Your task to perform on an android device: Find coffee shops on Maps Image 0: 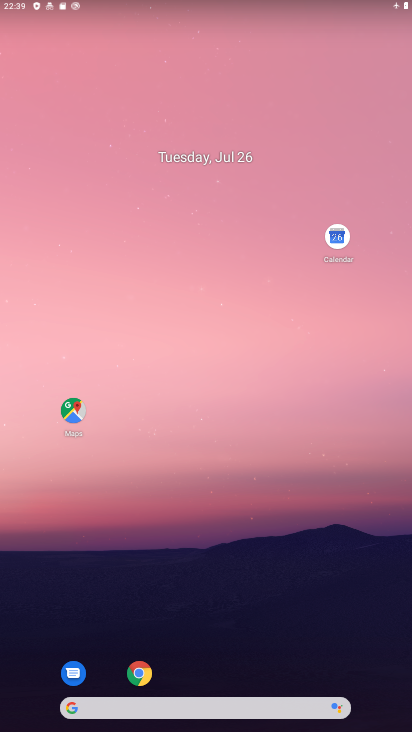
Step 0: drag from (330, 596) to (217, 0)
Your task to perform on an android device: Find coffee shops on Maps Image 1: 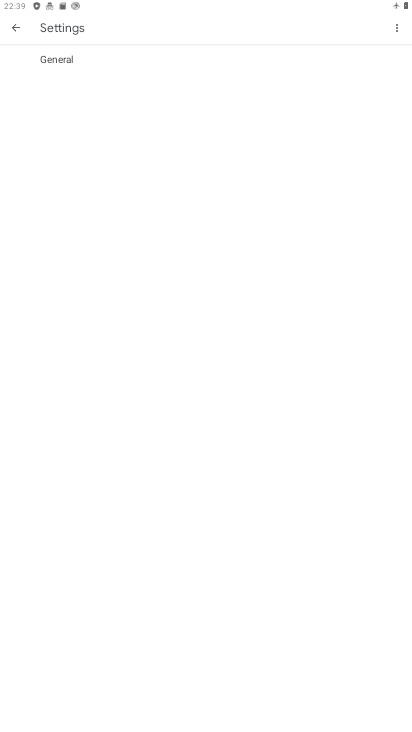
Step 1: click (15, 32)
Your task to perform on an android device: Find coffee shops on Maps Image 2: 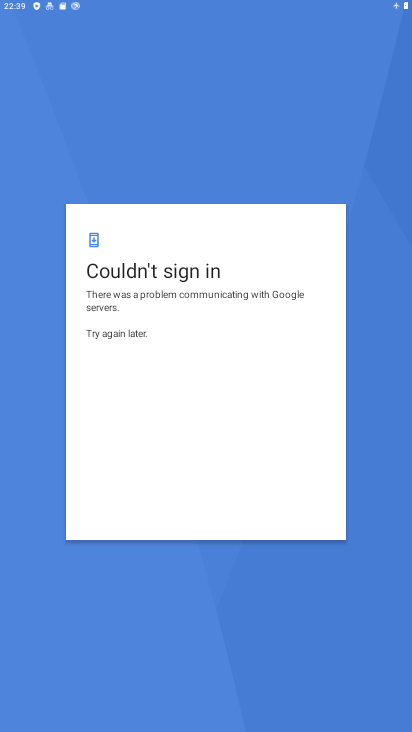
Step 2: press back button
Your task to perform on an android device: Find coffee shops on Maps Image 3: 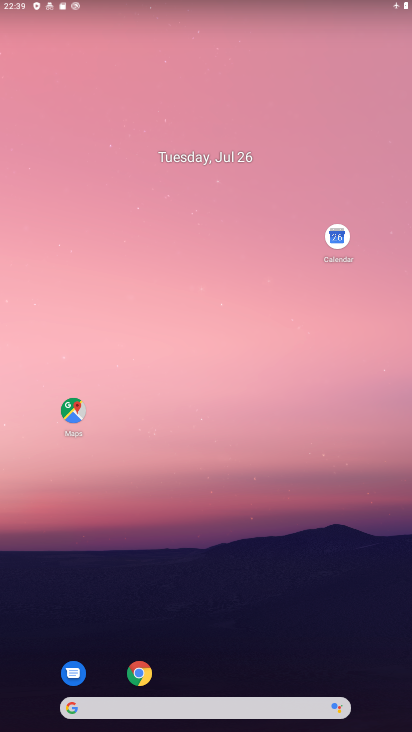
Step 3: click (75, 418)
Your task to perform on an android device: Find coffee shops on Maps Image 4: 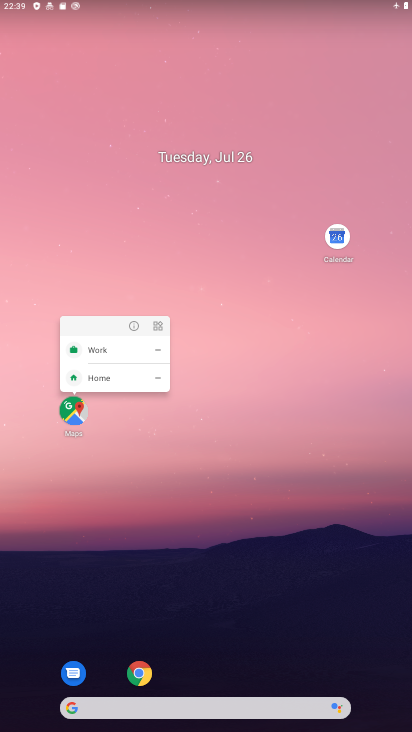
Step 4: click (74, 418)
Your task to perform on an android device: Find coffee shops on Maps Image 5: 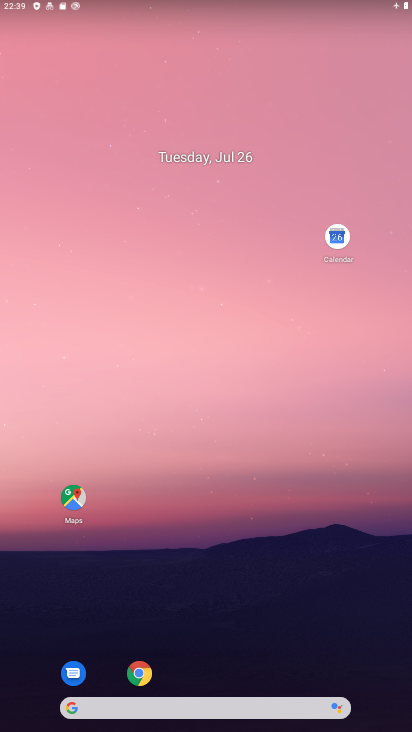
Step 5: click (76, 426)
Your task to perform on an android device: Find coffee shops on Maps Image 6: 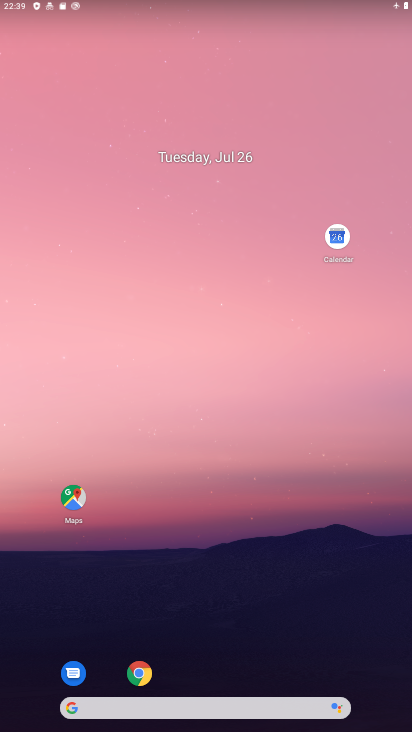
Step 6: click (66, 500)
Your task to perform on an android device: Find coffee shops on Maps Image 7: 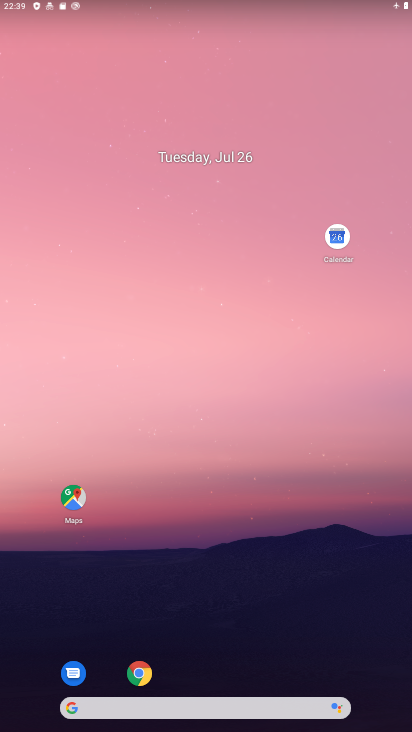
Step 7: click (69, 505)
Your task to perform on an android device: Find coffee shops on Maps Image 8: 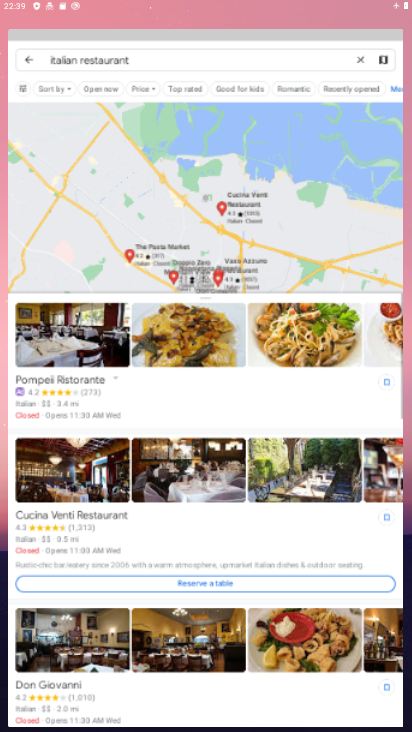
Step 8: click (75, 509)
Your task to perform on an android device: Find coffee shops on Maps Image 9: 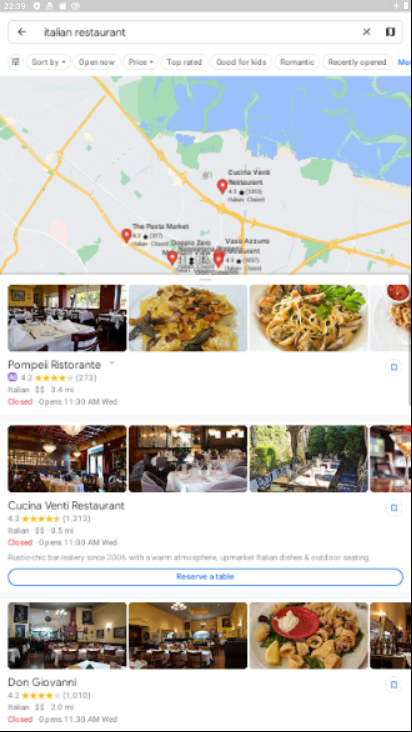
Step 9: click (90, 499)
Your task to perform on an android device: Find coffee shops on Maps Image 10: 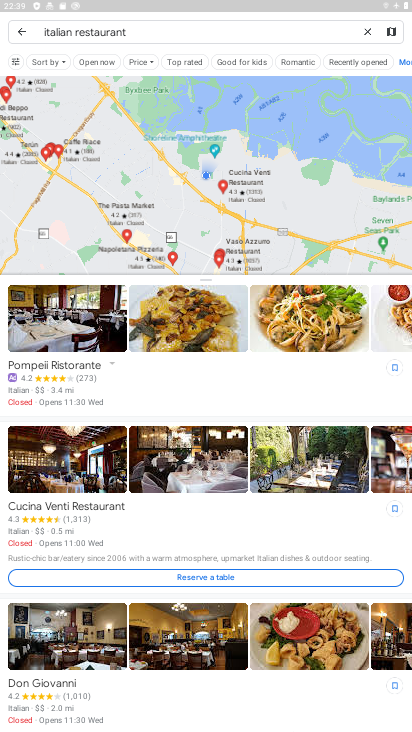
Step 10: click (135, 32)
Your task to perform on an android device: Find coffee shops on Maps Image 11: 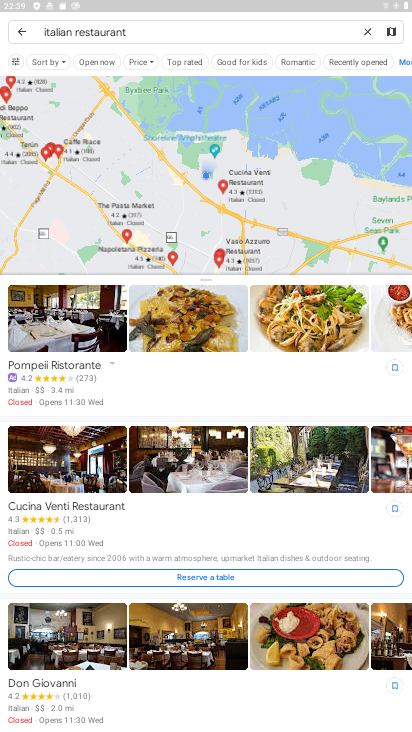
Step 11: click (142, 29)
Your task to perform on an android device: Find coffee shops on Maps Image 12: 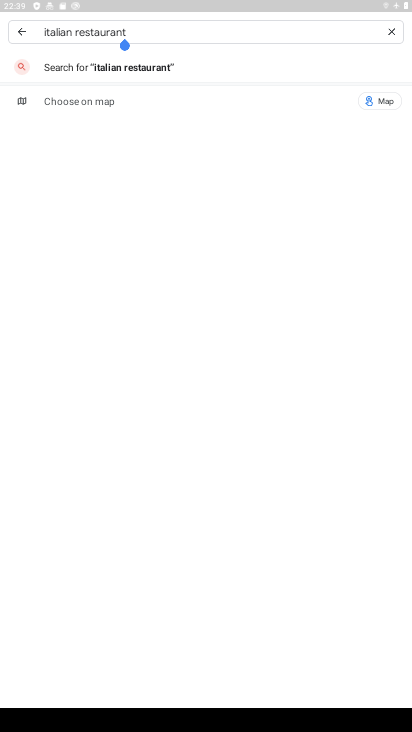
Step 12: click (134, 40)
Your task to perform on an android device: Find coffee shops on Maps Image 13: 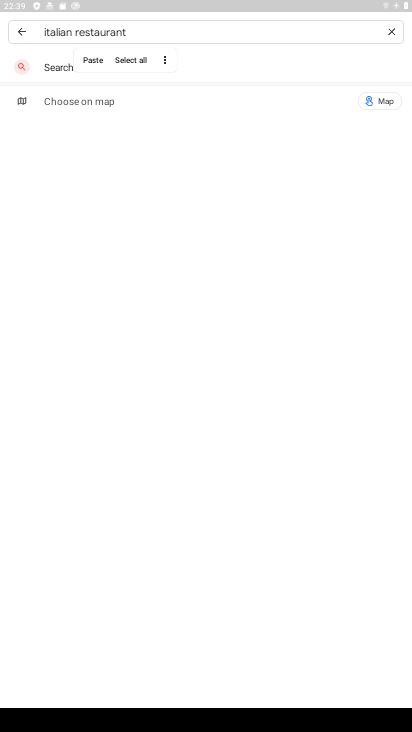
Step 13: click (394, 29)
Your task to perform on an android device: Find coffee shops on Maps Image 14: 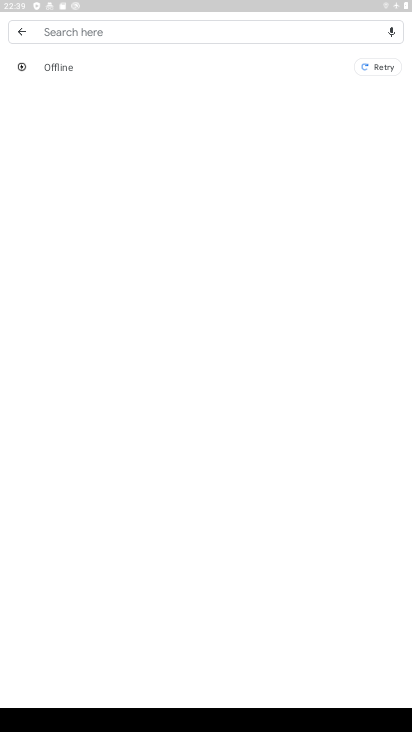
Step 14: type "coffee"
Your task to perform on an android device: Find coffee shops on Maps Image 15: 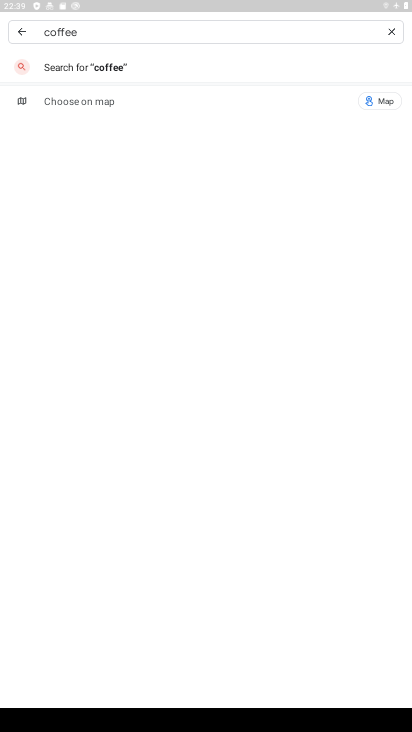
Step 15: click (113, 63)
Your task to perform on an android device: Find coffee shops on Maps Image 16: 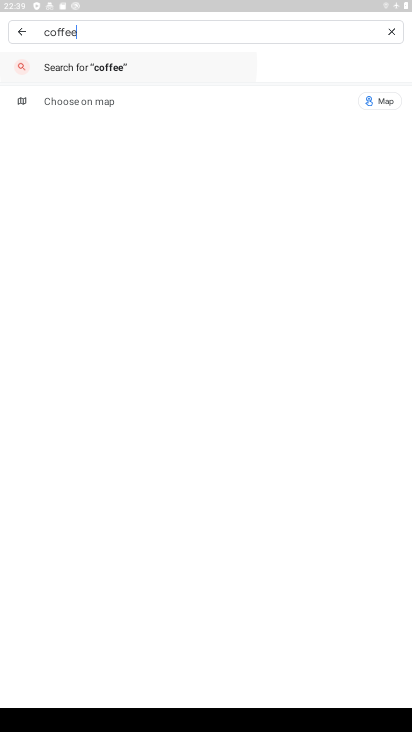
Step 16: click (112, 64)
Your task to perform on an android device: Find coffee shops on Maps Image 17: 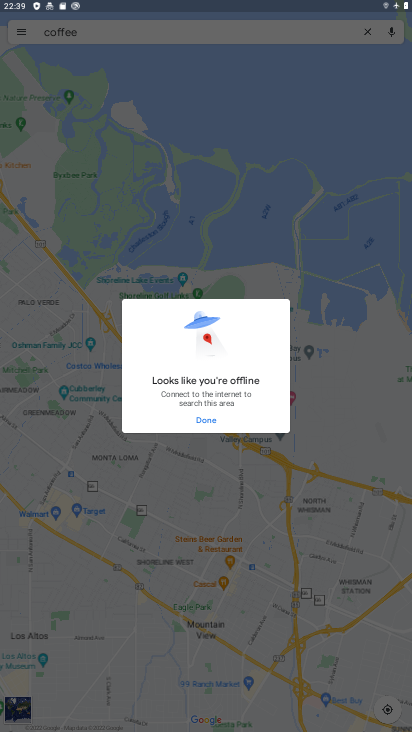
Step 17: task complete